Your task to perform on an android device: Open CNN.com Image 0: 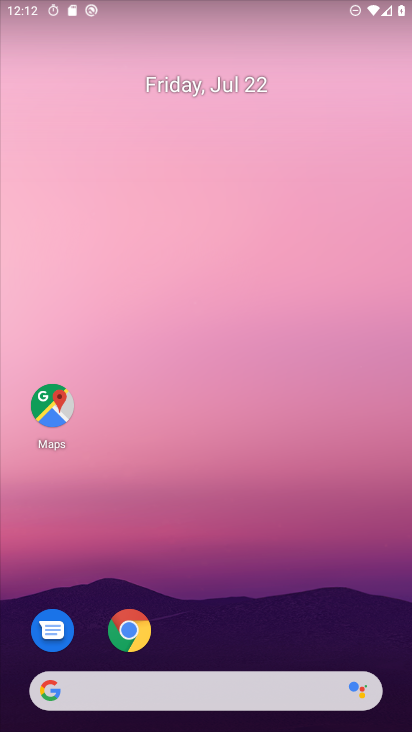
Step 0: press home button
Your task to perform on an android device: Open CNN.com Image 1: 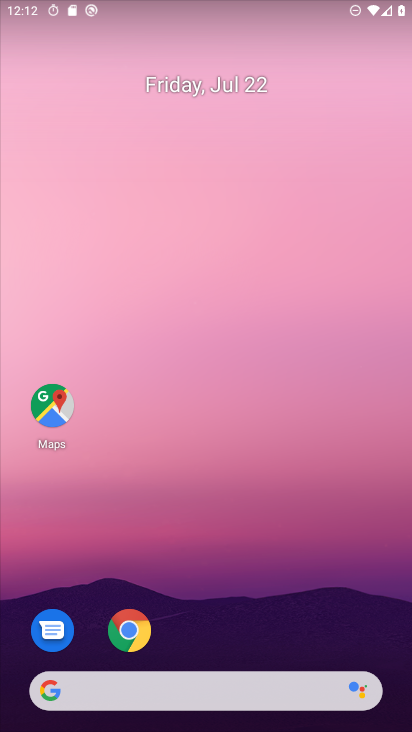
Step 1: click (47, 687)
Your task to perform on an android device: Open CNN.com Image 2: 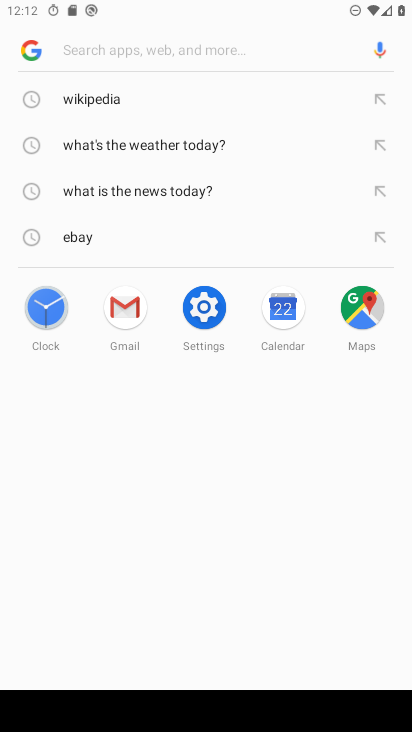
Step 2: type "CNN.com"
Your task to perform on an android device: Open CNN.com Image 3: 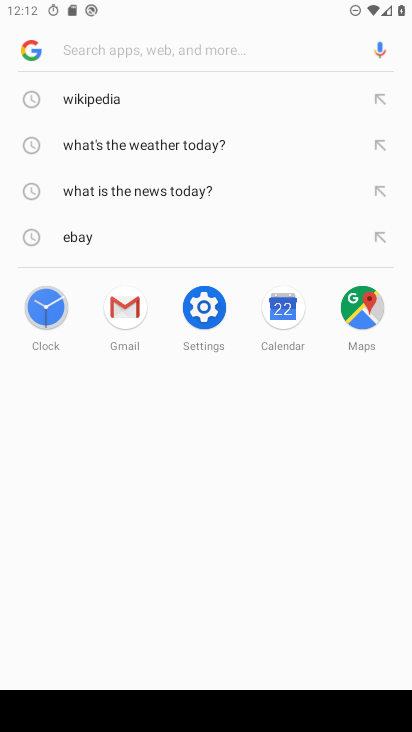
Step 3: click (81, 52)
Your task to perform on an android device: Open CNN.com Image 4: 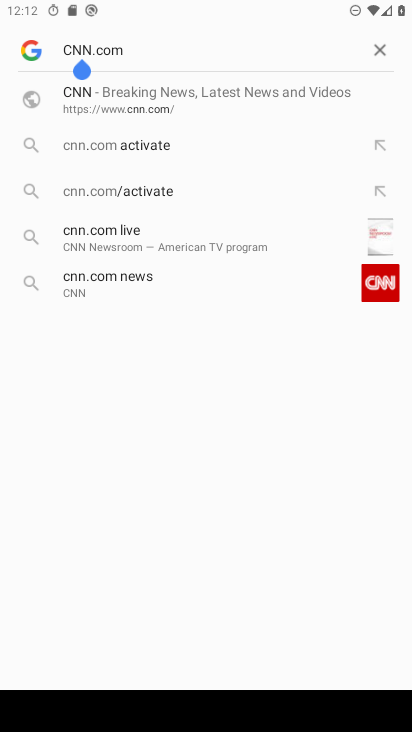
Step 4: press enter
Your task to perform on an android device: Open CNN.com Image 5: 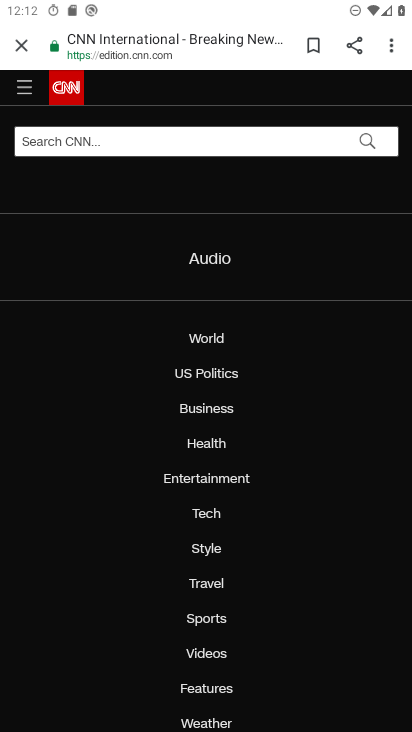
Step 5: task complete